Your task to perform on an android device: snooze an email in the gmail app Image 0: 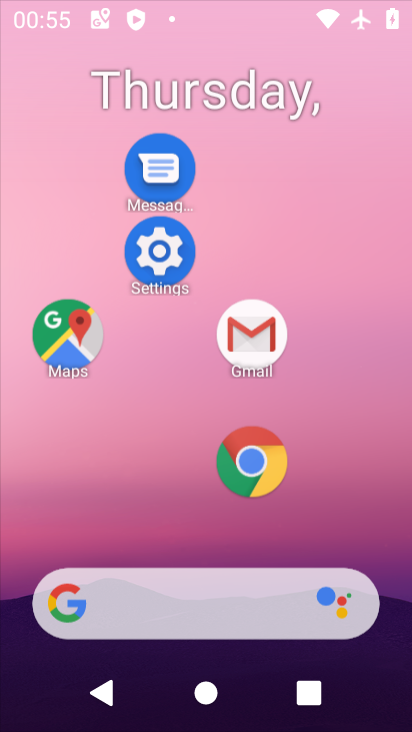
Step 0: drag from (191, 615) to (265, 251)
Your task to perform on an android device: snooze an email in the gmail app Image 1: 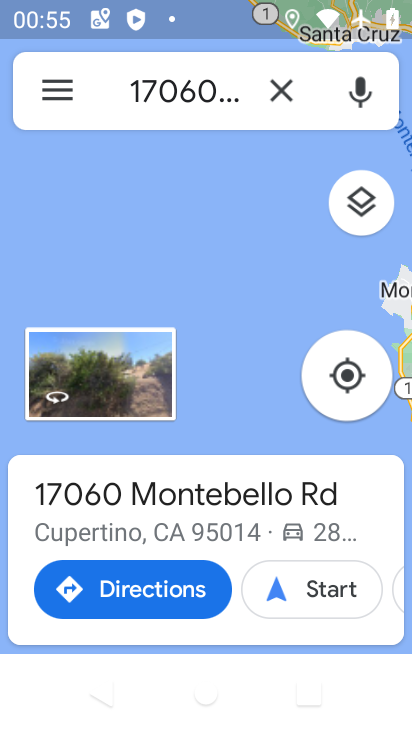
Step 1: drag from (193, 499) to (245, 240)
Your task to perform on an android device: snooze an email in the gmail app Image 2: 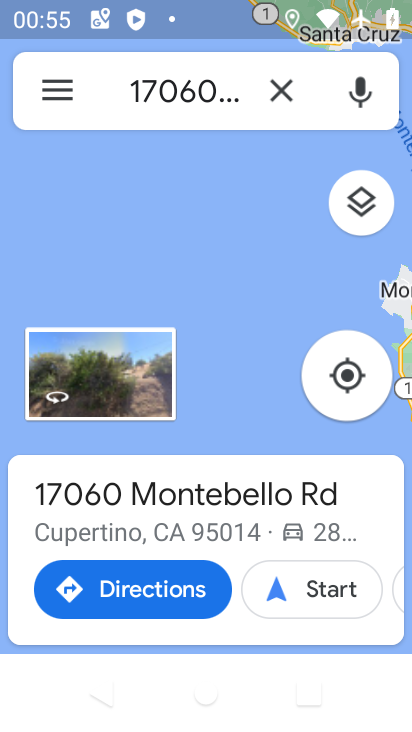
Step 2: press home button
Your task to perform on an android device: snooze an email in the gmail app Image 3: 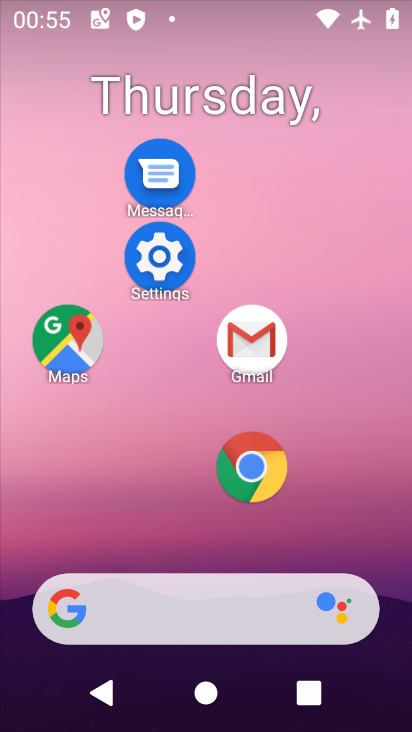
Step 3: drag from (189, 535) to (226, 211)
Your task to perform on an android device: snooze an email in the gmail app Image 4: 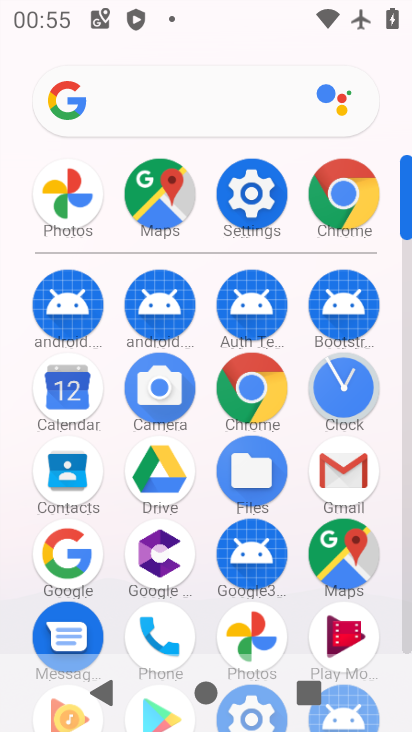
Step 4: click (348, 466)
Your task to perform on an android device: snooze an email in the gmail app Image 5: 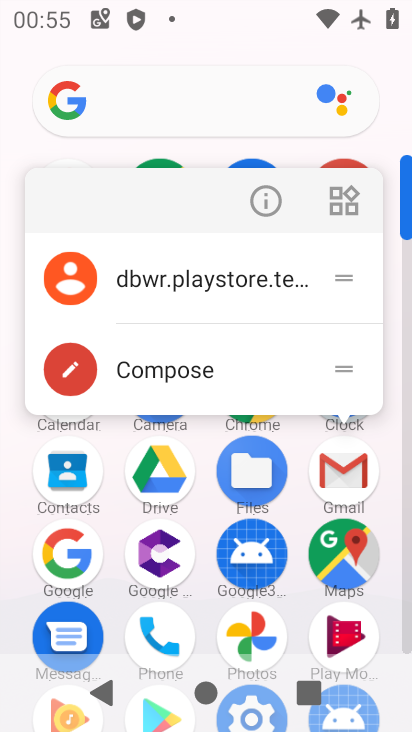
Step 5: click (262, 206)
Your task to perform on an android device: snooze an email in the gmail app Image 6: 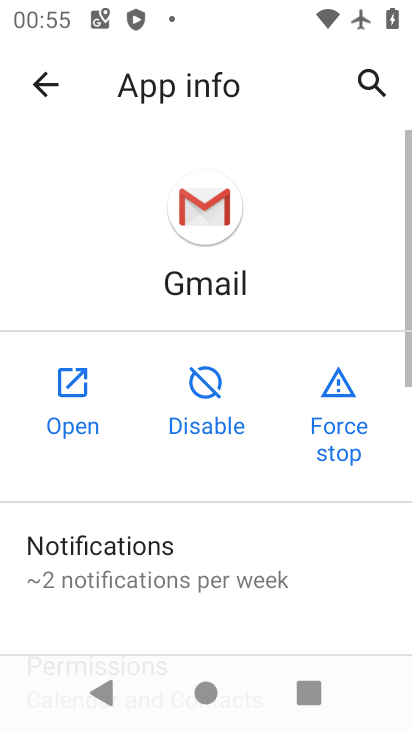
Step 6: click (77, 395)
Your task to perform on an android device: snooze an email in the gmail app Image 7: 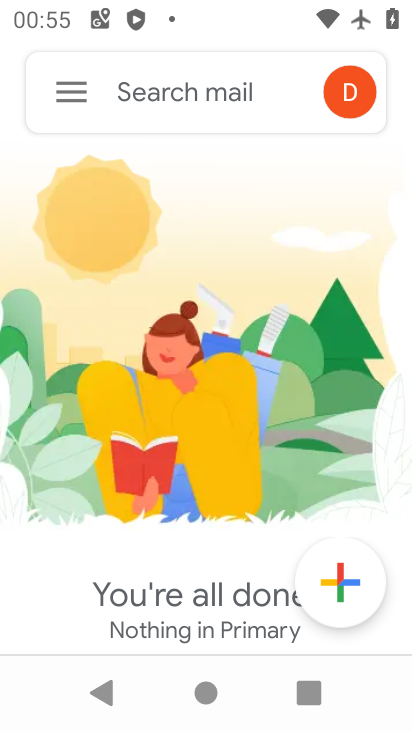
Step 7: drag from (178, 560) to (196, 207)
Your task to perform on an android device: snooze an email in the gmail app Image 8: 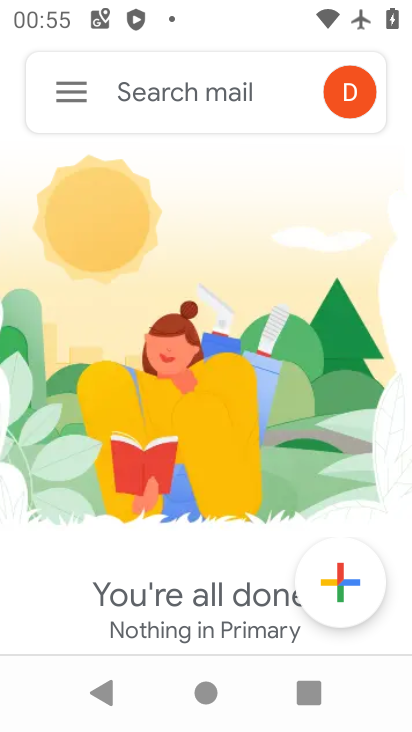
Step 8: click (51, 101)
Your task to perform on an android device: snooze an email in the gmail app Image 9: 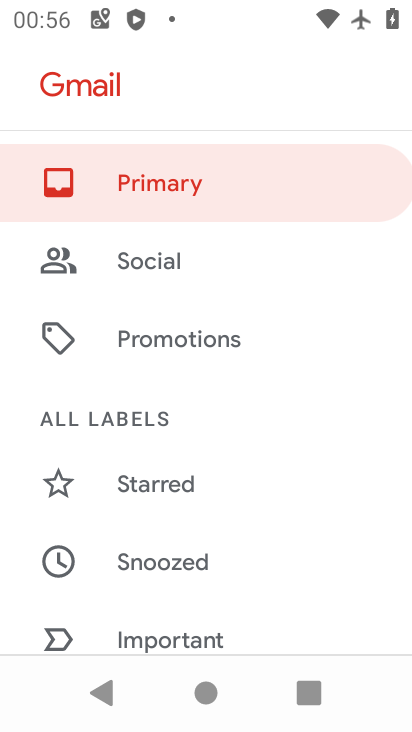
Step 9: drag from (203, 540) to (231, 136)
Your task to perform on an android device: snooze an email in the gmail app Image 10: 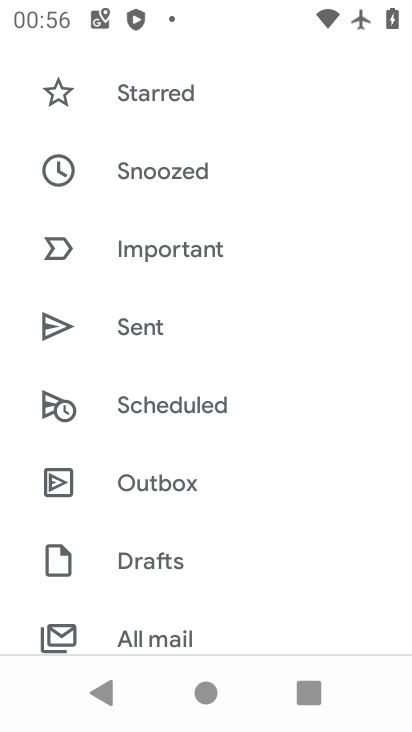
Step 10: click (157, 159)
Your task to perform on an android device: snooze an email in the gmail app Image 11: 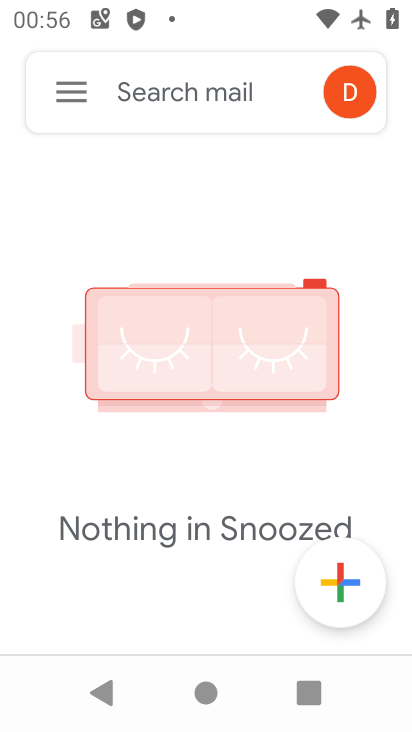
Step 11: click (84, 100)
Your task to perform on an android device: snooze an email in the gmail app Image 12: 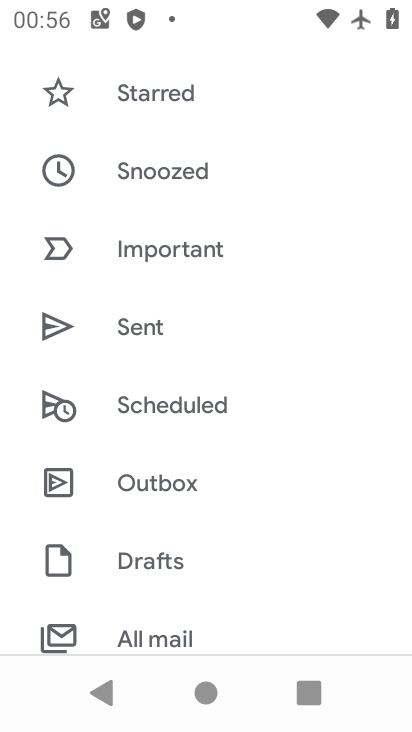
Step 12: task complete